Your task to perform on an android device: Clear the shopping cart on ebay. Search for "apple airpods" on ebay, select the first entry, add it to the cart, then select checkout. Image 0: 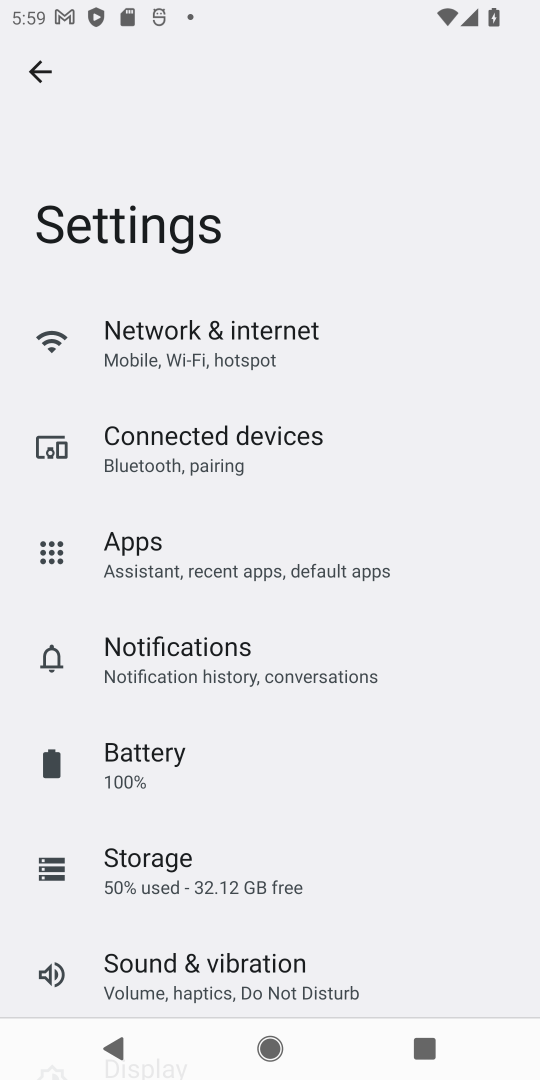
Step 0: press home button
Your task to perform on an android device: Clear the shopping cart on ebay. Search for "apple airpods" on ebay, select the first entry, add it to the cart, then select checkout. Image 1: 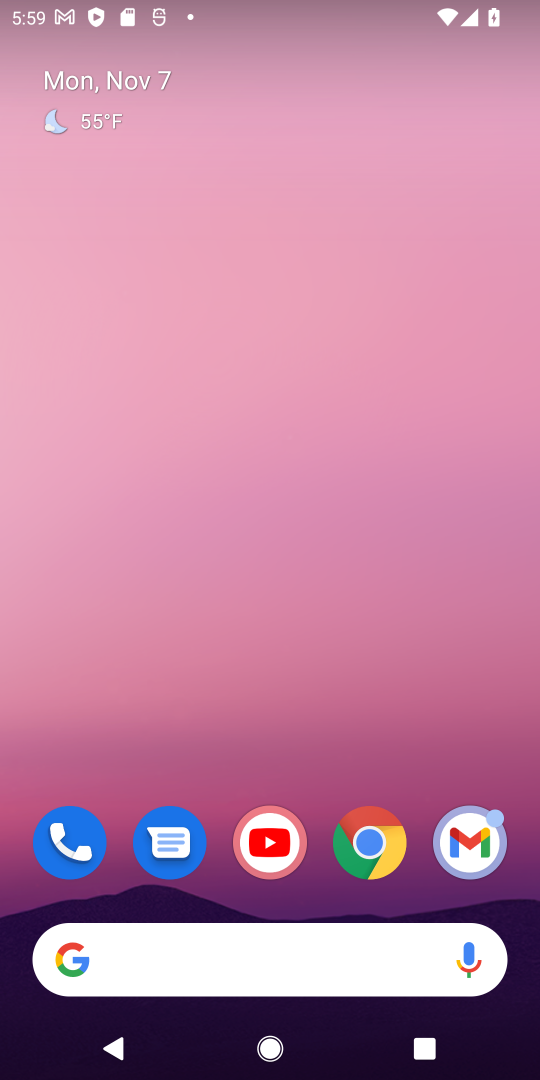
Step 1: click (375, 839)
Your task to perform on an android device: Clear the shopping cart on ebay. Search for "apple airpods" on ebay, select the first entry, add it to the cart, then select checkout. Image 2: 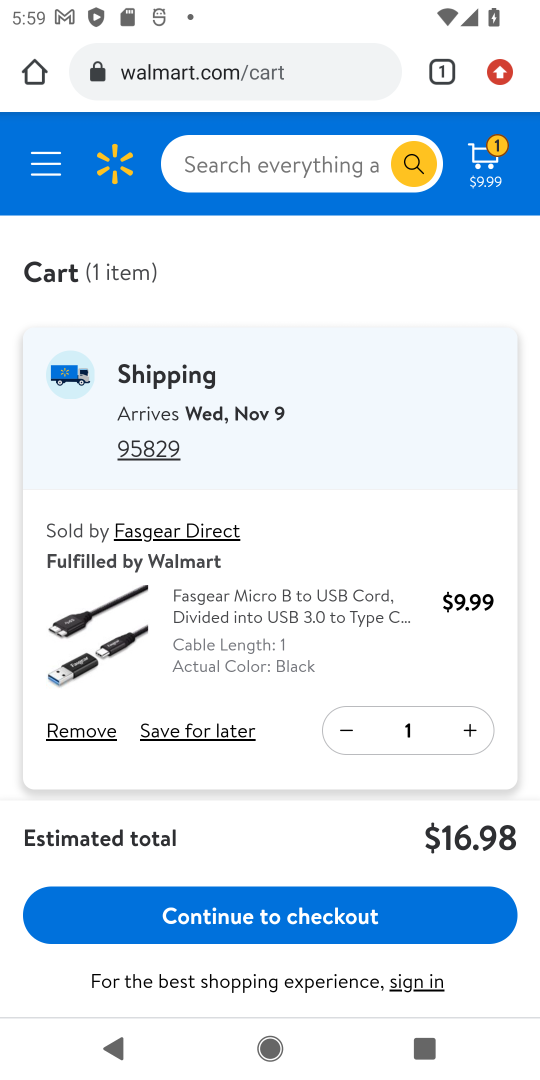
Step 2: click (298, 146)
Your task to perform on an android device: Clear the shopping cart on ebay. Search for "apple airpods" on ebay, select the first entry, add it to the cart, then select checkout. Image 3: 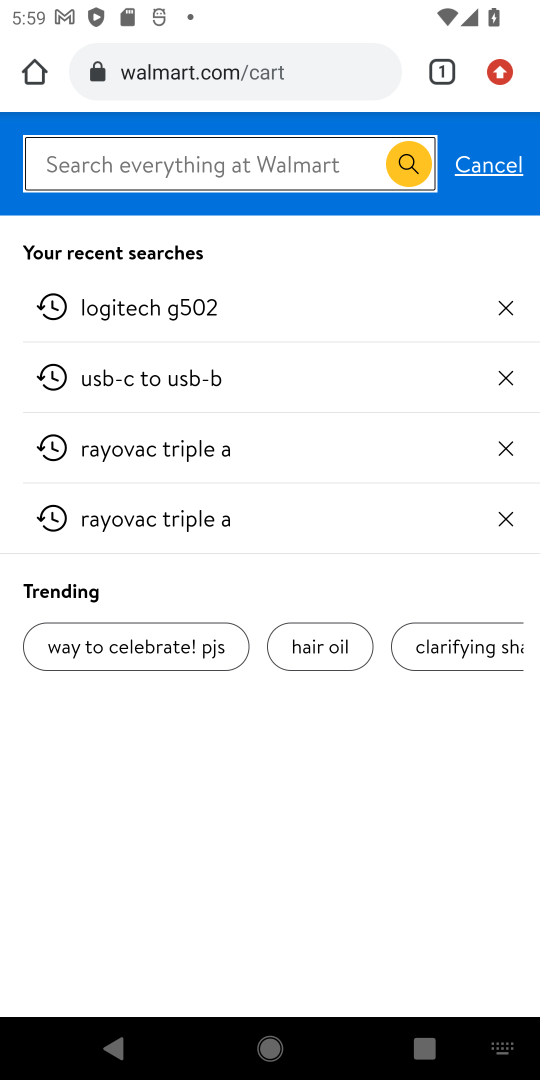
Step 3: click (277, 80)
Your task to perform on an android device: Clear the shopping cart on ebay. Search for "apple airpods" on ebay, select the first entry, add it to the cart, then select checkout. Image 4: 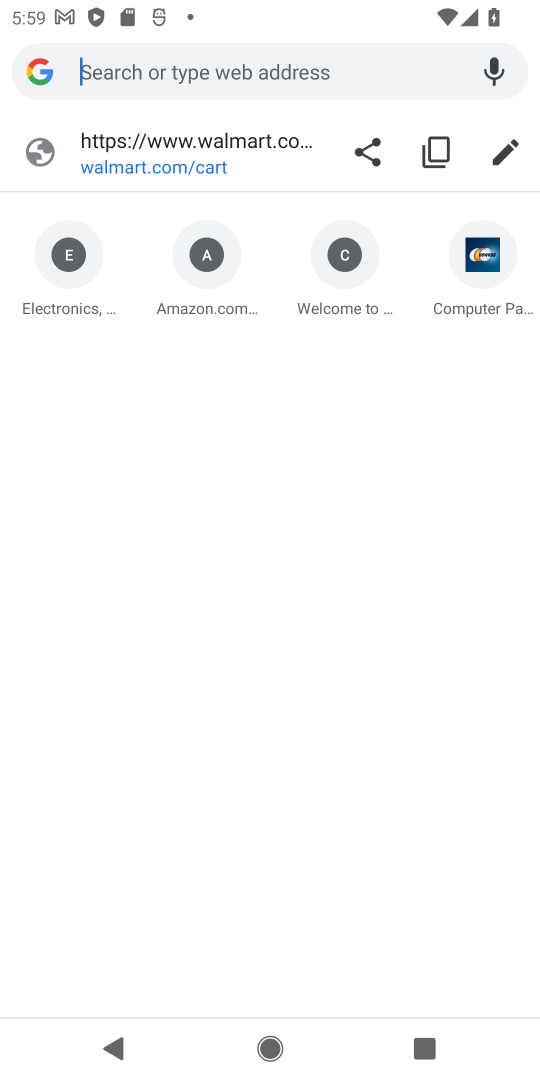
Step 4: type " ebay"
Your task to perform on an android device: Clear the shopping cart on ebay. Search for "apple airpods" on ebay, select the first entry, add it to the cart, then select checkout. Image 5: 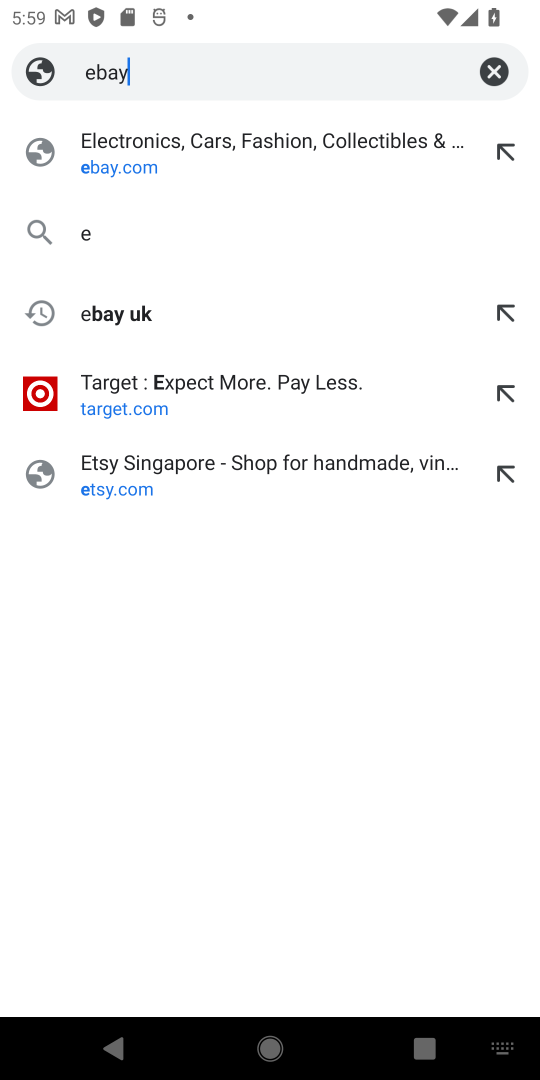
Step 5: press enter
Your task to perform on an android device: Clear the shopping cart on ebay. Search for "apple airpods" on ebay, select the first entry, add it to the cart, then select checkout. Image 6: 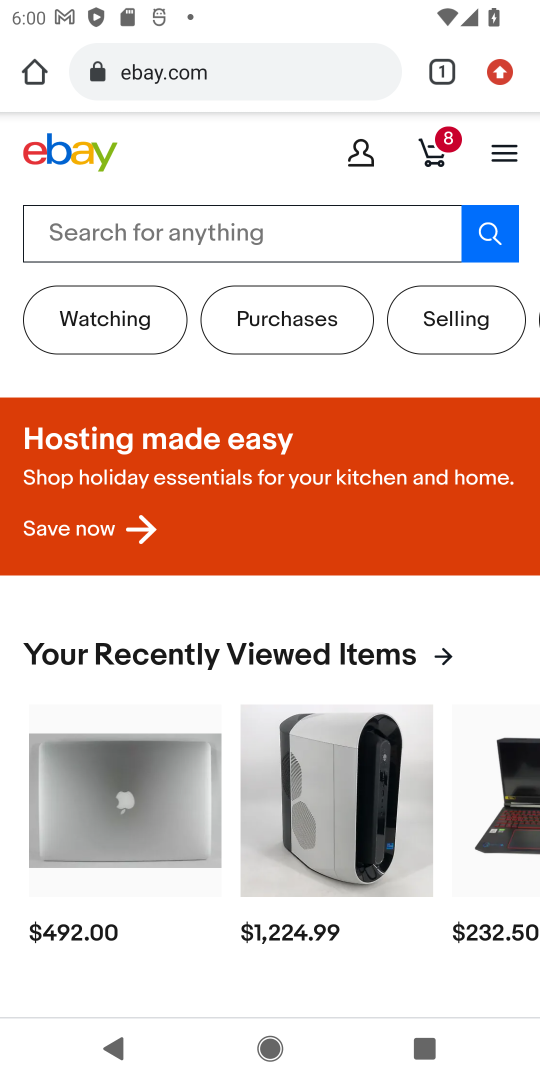
Step 6: click (180, 245)
Your task to perform on an android device: Clear the shopping cart on ebay. Search for "apple airpods" on ebay, select the first entry, add it to the cart, then select checkout. Image 7: 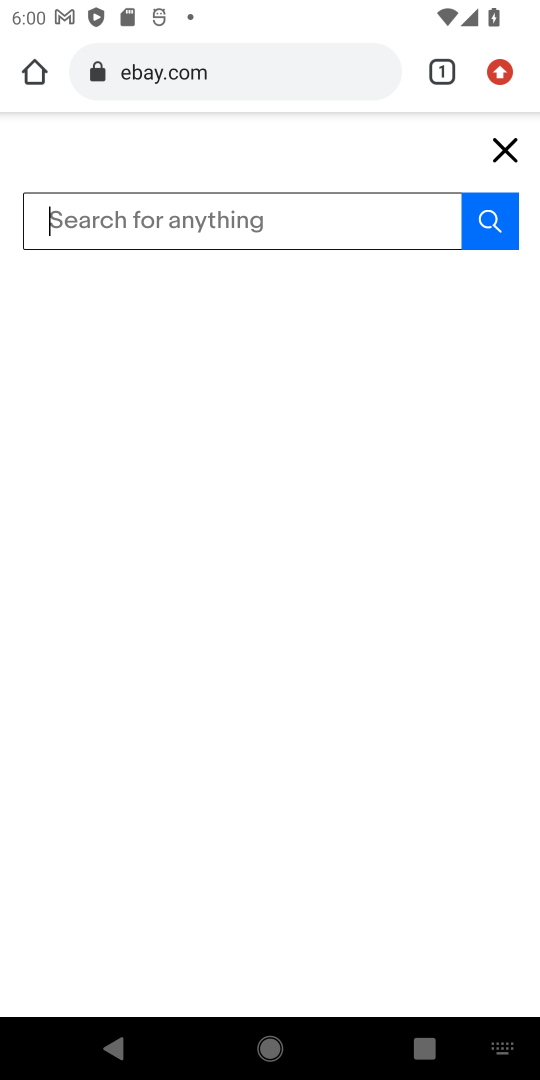
Step 7: type "apple airpods"
Your task to perform on an android device: Clear the shopping cart on ebay. Search for "apple airpods" on ebay, select the first entry, add it to the cart, then select checkout. Image 8: 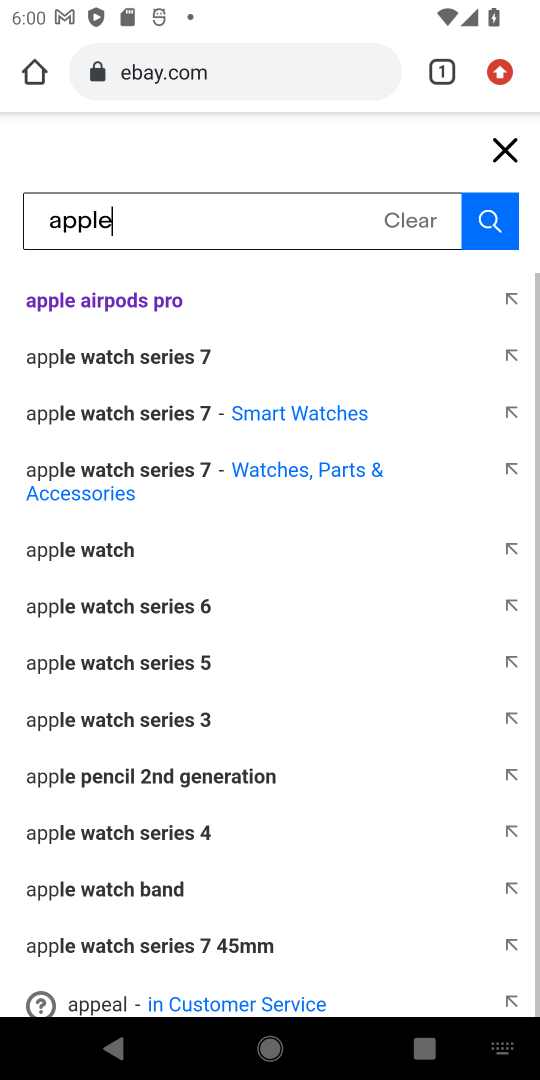
Step 8: press enter
Your task to perform on an android device: Clear the shopping cart on ebay. Search for "apple airpods" on ebay, select the first entry, add it to the cart, then select checkout. Image 9: 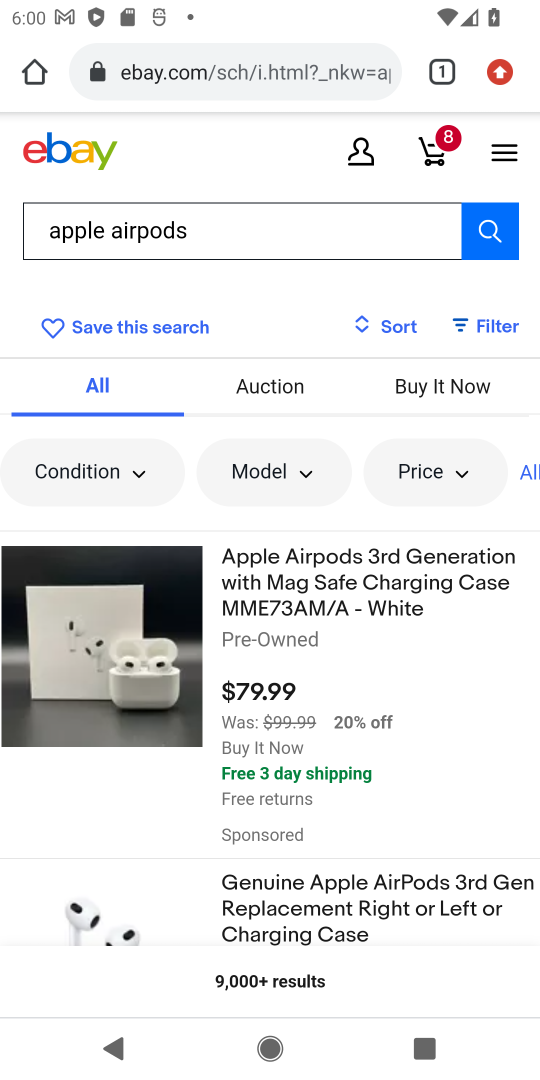
Step 9: click (401, 613)
Your task to perform on an android device: Clear the shopping cart on ebay. Search for "apple airpods" on ebay, select the first entry, add it to the cart, then select checkout. Image 10: 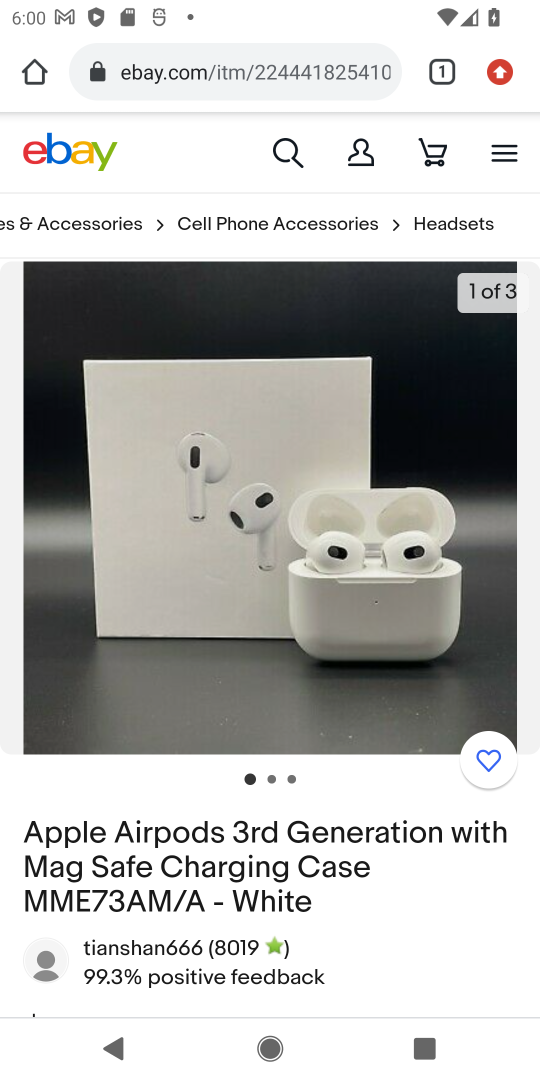
Step 10: drag from (348, 928) to (485, 324)
Your task to perform on an android device: Clear the shopping cart on ebay. Search for "apple airpods" on ebay, select the first entry, add it to the cart, then select checkout. Image 11: 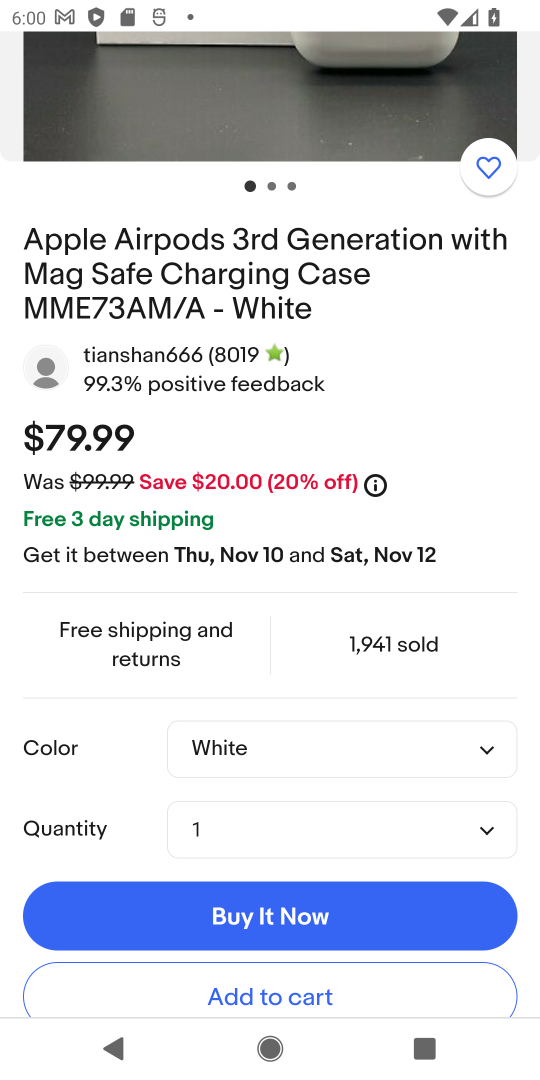
Step 11: drag from (341, 810) to (460, 422)
Your task to perform on an android device: Clear the shopping cart on ebay. Search for "apple airpods" on ebay, select the first entry, add it to the cart, then select checkout. Image 12: 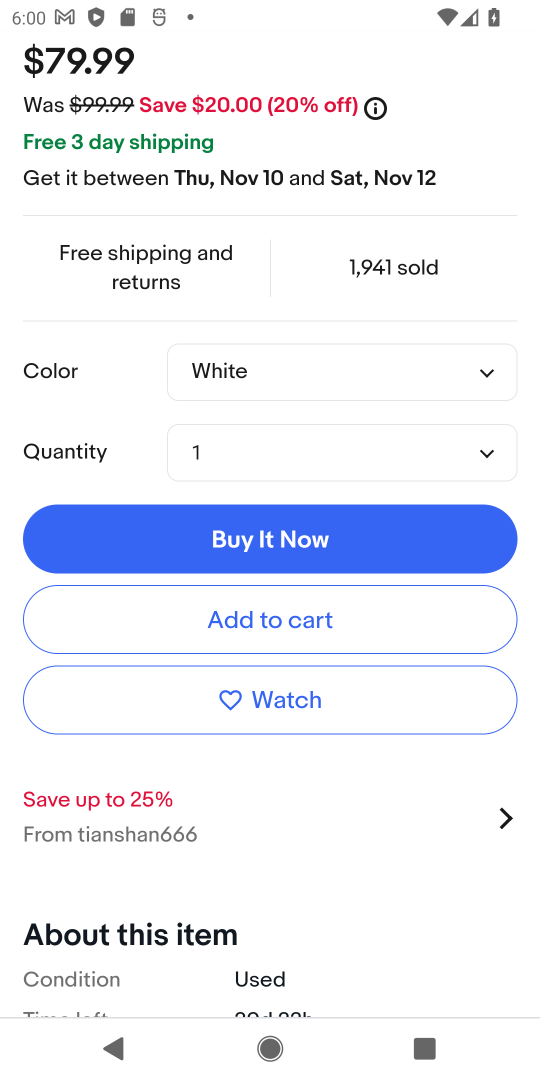
Step 12: click (289, 620)
Your task to perform on an android device: Clear the shopping cart on ebay. Search for "apple airpods" on ebay, select the first entry, add it to the cart, then select checkout. Image 13: 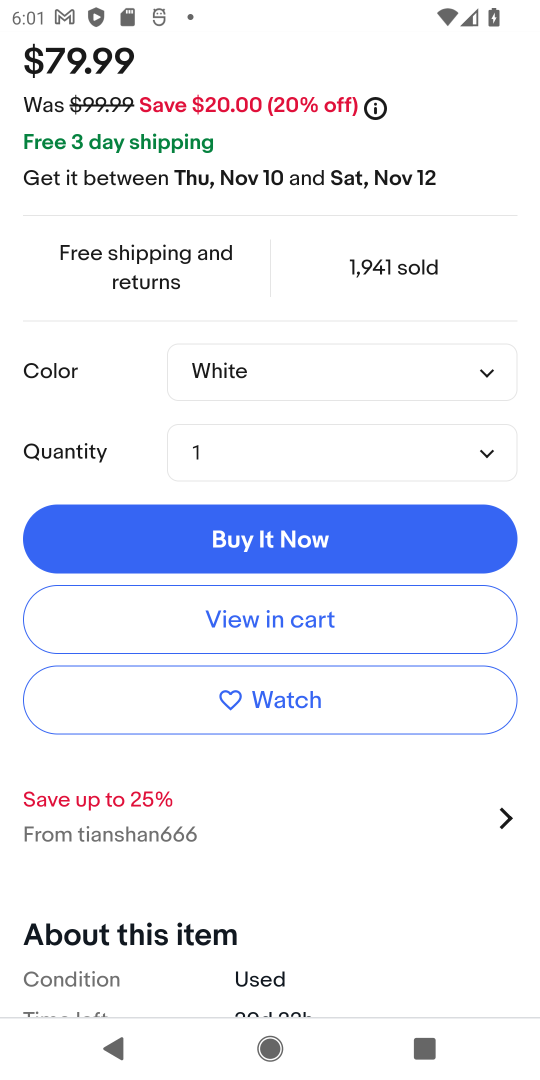
Step 13: click (289, 613)
Your task to perform on an android device: Clear the shopping cart on ebay. Search for "apple airpods" on ebay, select the first entry, add it to the cart, then select checkout. Image 14: 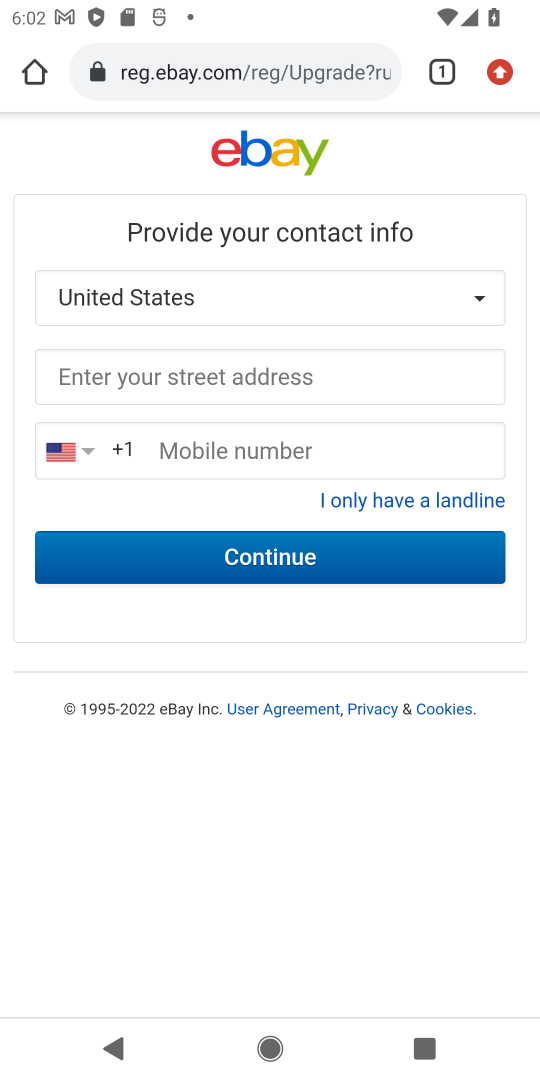
Step 14: task complete